Your task to perform on an android device: turn off sleep mode Image 0: 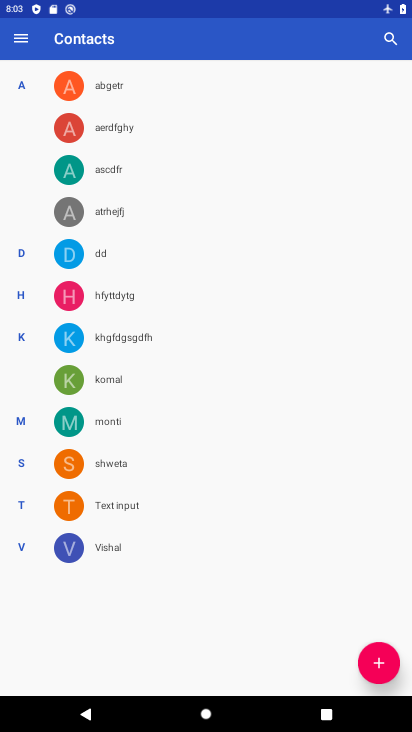
Step 0: press home button
Your task to perform on an android device: turn off sleep mode Image 1: 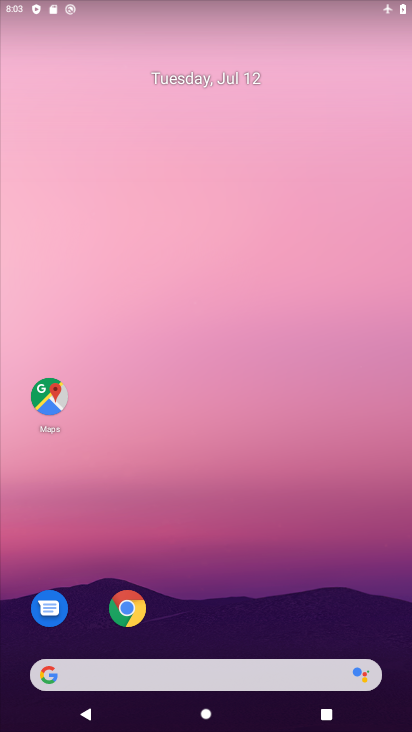
Step 1: drag from (200, 642) to (177, 61)
Your task to perform on an android device: turn off sleep mode Image 2: 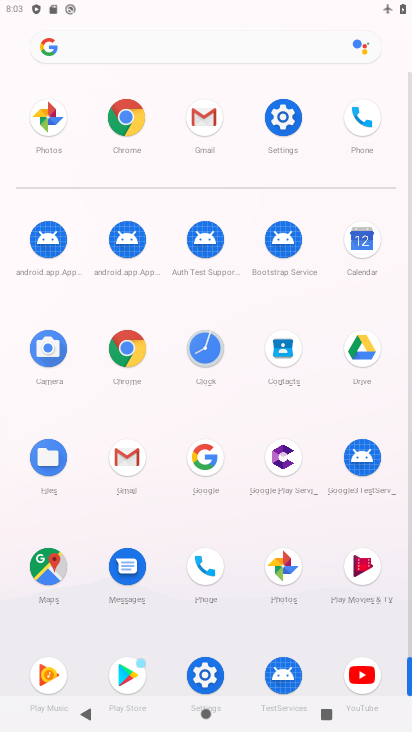
Step 2: click (268, 128)
Your task to perform on an android device: turn off sleep mode Image 3: 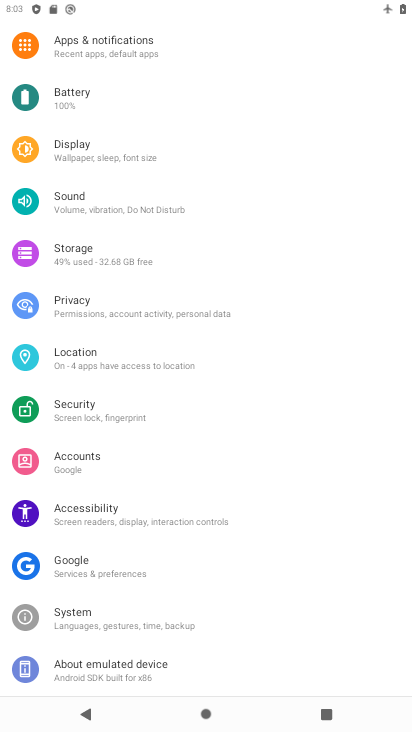
Step 3: click (75, 163)
Your task to perform on an android device: turn off sleep mode Image 4: 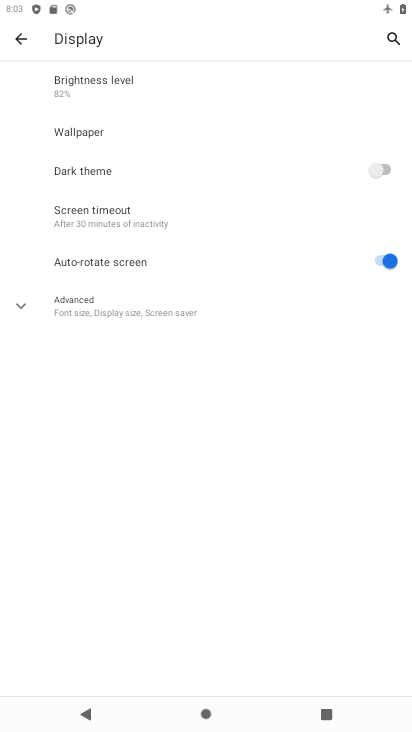
Step 4: task complete